Your task to perform on an android device: open wifi settings Image 0: 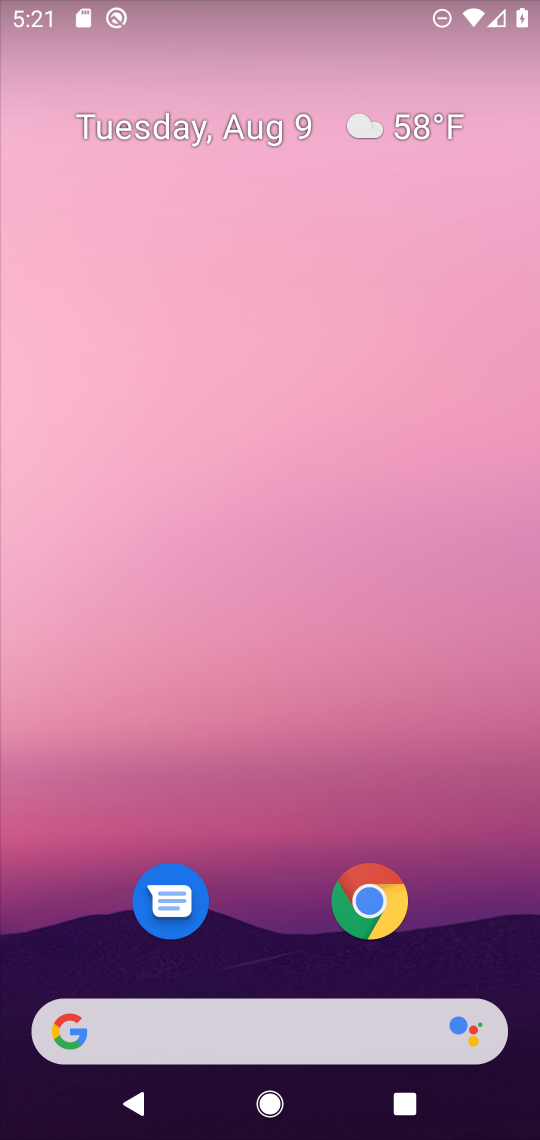
Step 0: drag from (197, 1) to (140, 851)
Your task to perform on an android device: open wifi settings Image 1: 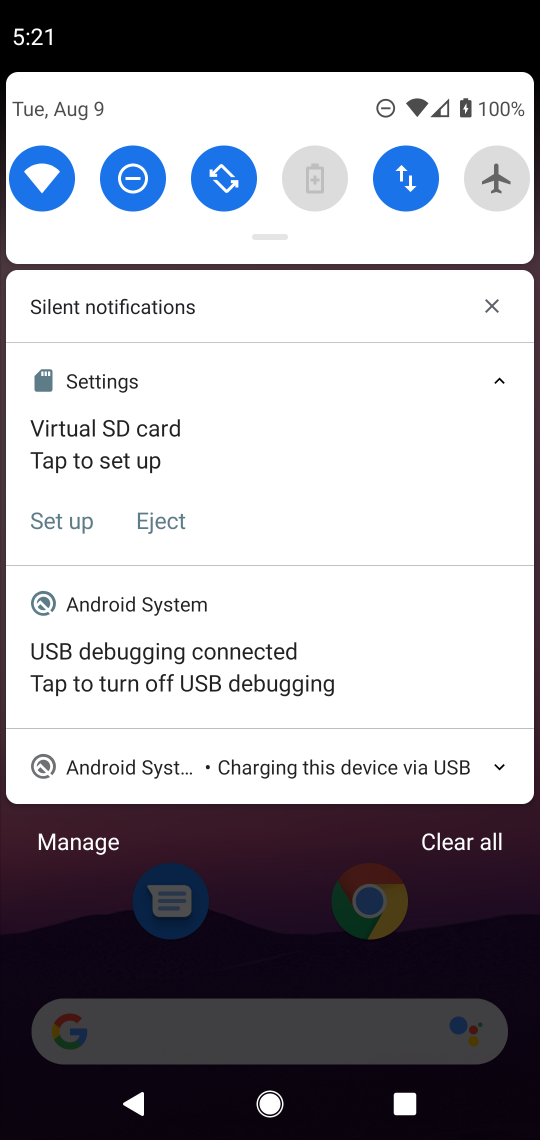
Step 1: click (26, 177)
Your task to perform on an android device: open wifi settings Image 2: 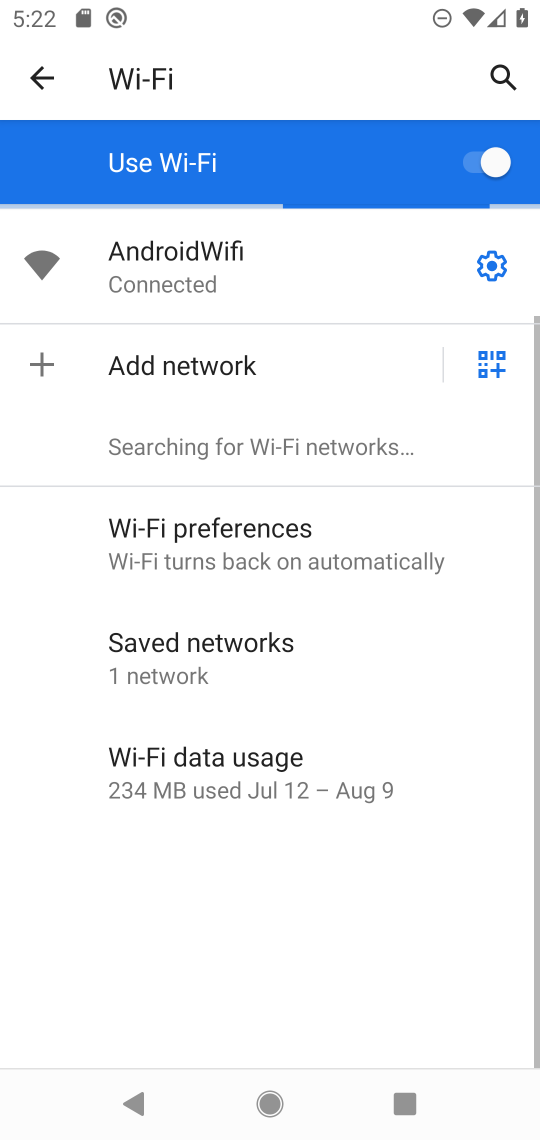
Step 2: task complete